Your task to perform on an android device: Go to Wikipedia Image 0: 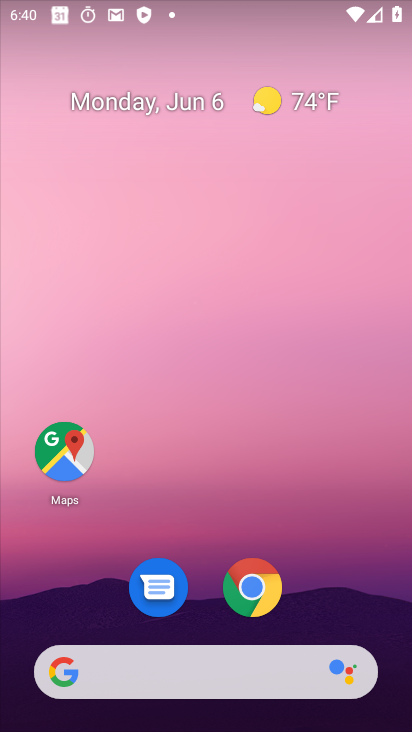
Step 0: drag from (394, 691) to (337, 1)
Your task to perform on an android device: Go to Wikipedia Image 1: 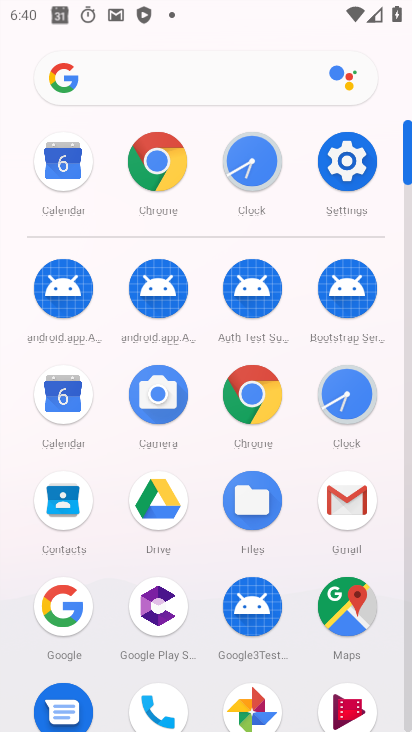
Step 1: click (79, 609)
Your task to perform on an android device: Go to Wikipedia Image 2: 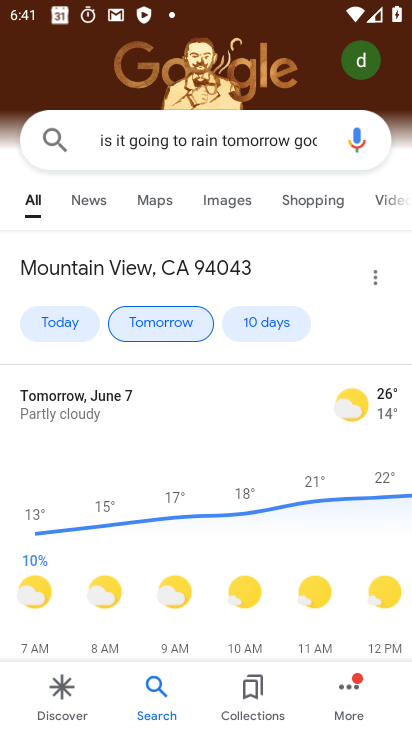
Step 2: press back button
Your task to perform on an android device: Go to Wikipedia Image 3: 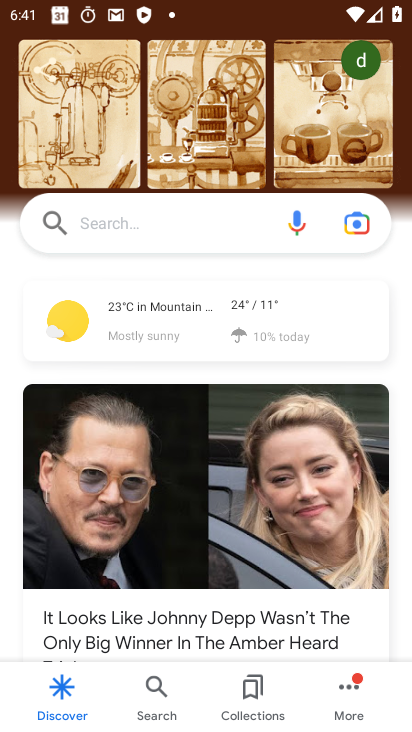
Step 3: click (146, 218)
Your task to perform on an android device: Go to Wikipedia Image 4: 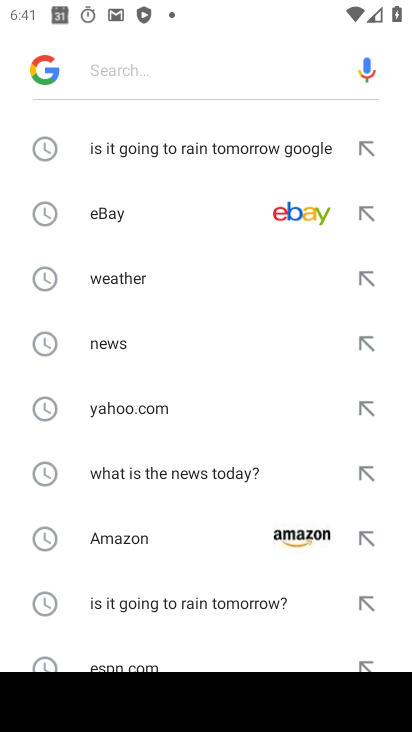
Step 4: drag from (125, 545) to (178, 48)
Your task to perform on an android device: Go to Wikipedia Image 5: 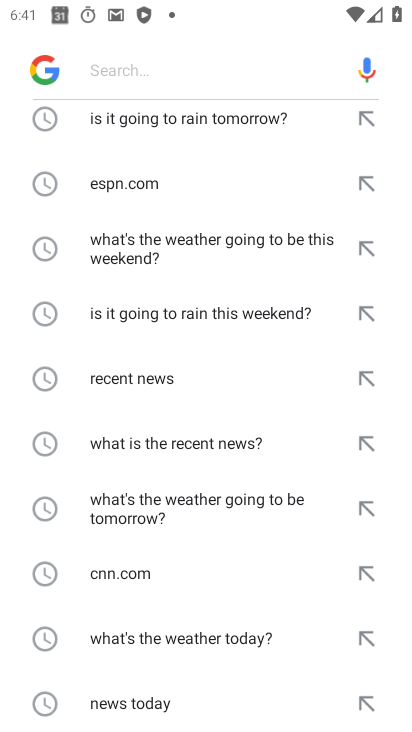
Step 5: drag from (128, 686) to (178, 163)
Your task to perform on an android device: Go to Wikipedia Image 6: 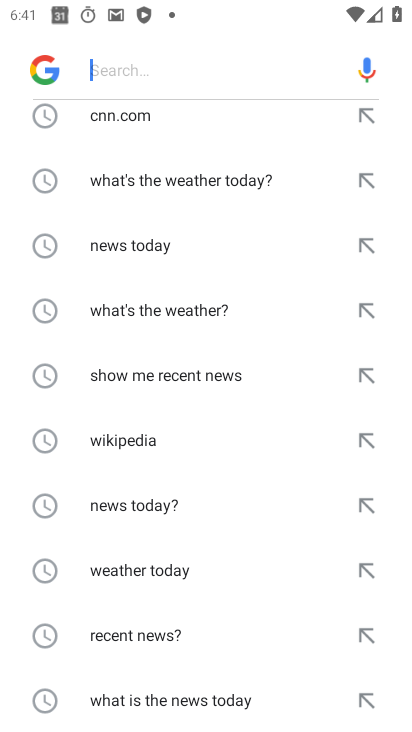
Step 6: click (153, 440)
Your task to perform on an android device: Go to Wikipedia Image 7: 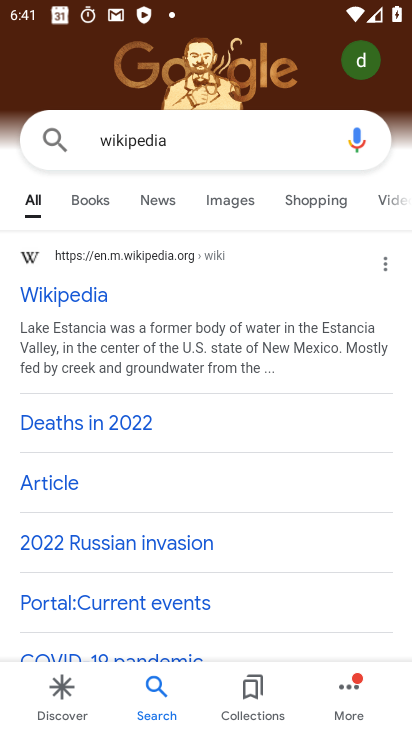
Step 7: task complete